Your task to perform on an android device: What is the recent news? Image 0: 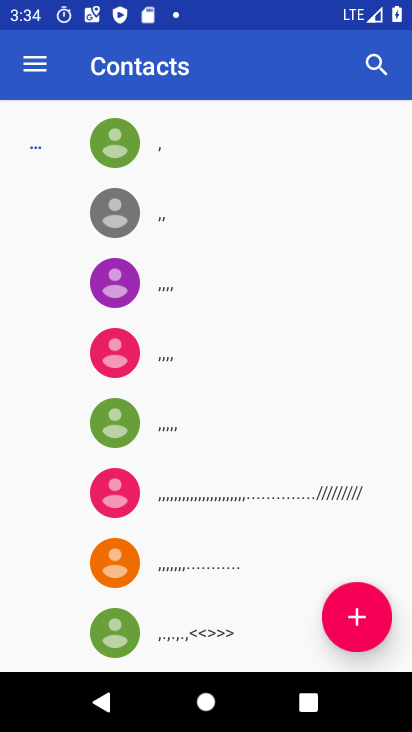
Step 0: press home button
Your task to perform on an android device: What is the recent news? Image 1: 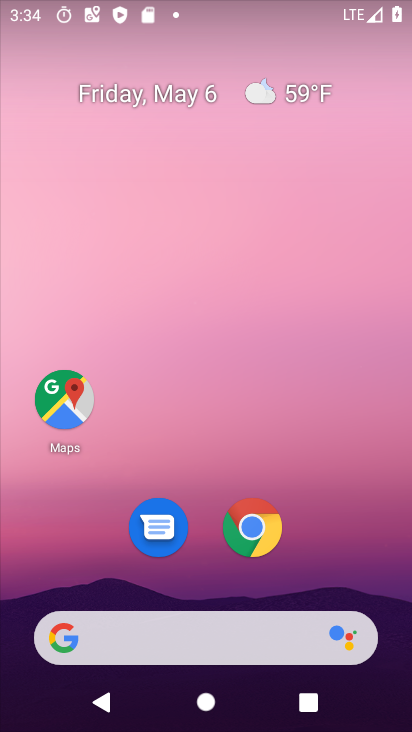
Step 1: drag from (318, 515) to (252, 76)
Your task to perform on an android device: What is the recent news? Image 2: 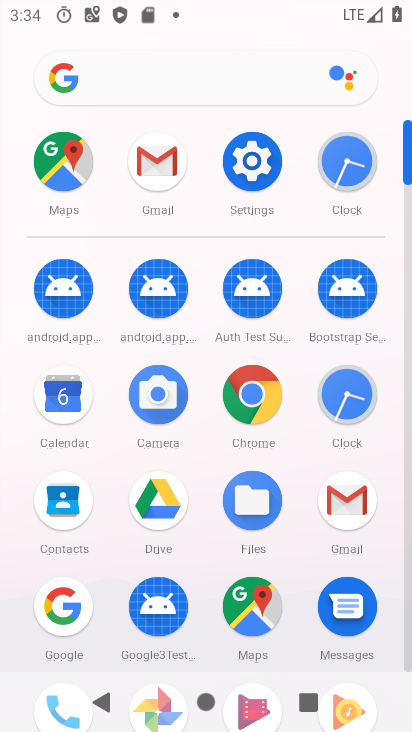
Step 2: click (63, 613)
Your task to perform on an android device: What is the recent news? Image 3: 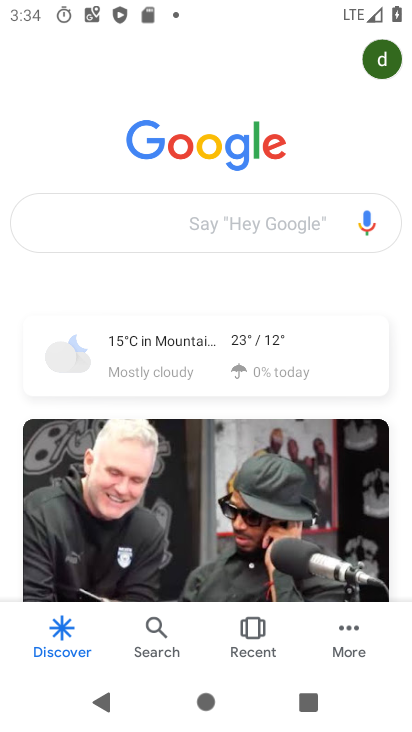
Step 3: task complete